Your task to perform on an android device: What is the news today? Image 0: 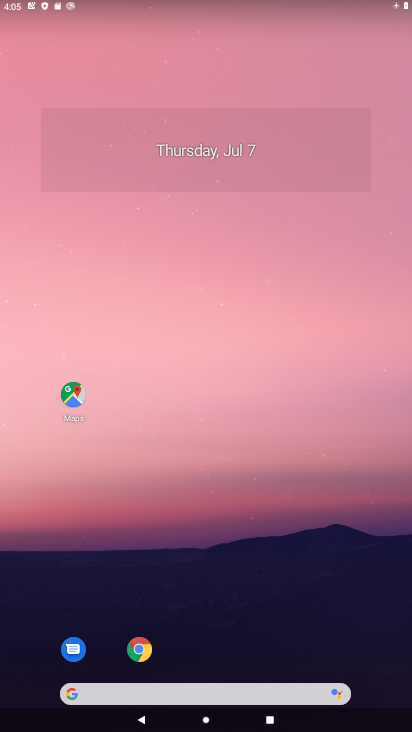
Step 0: drag from (305, 566) to (182, 102)
Your task to perform on an android device: What is the news today? Image 1: 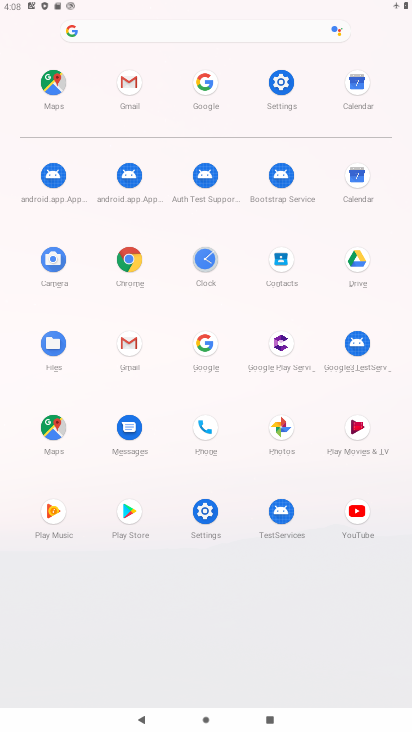
Step 1: click (191, 87)
Your task to perform on an android device: What is the news today? Image 2: 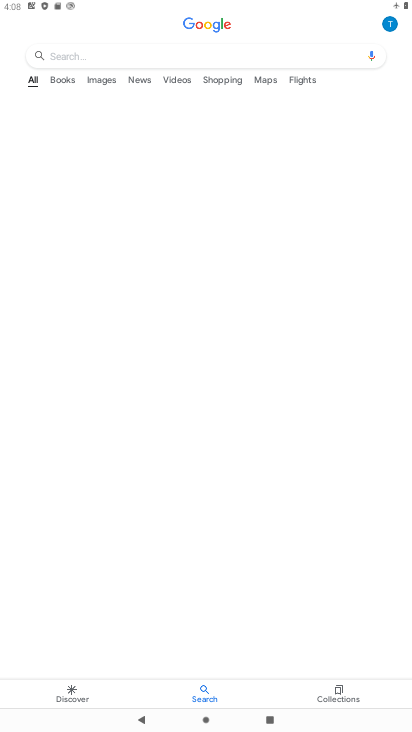
Step 2: click (194, 59)
Your task to perform on an android device: What is the news today? Image 3: 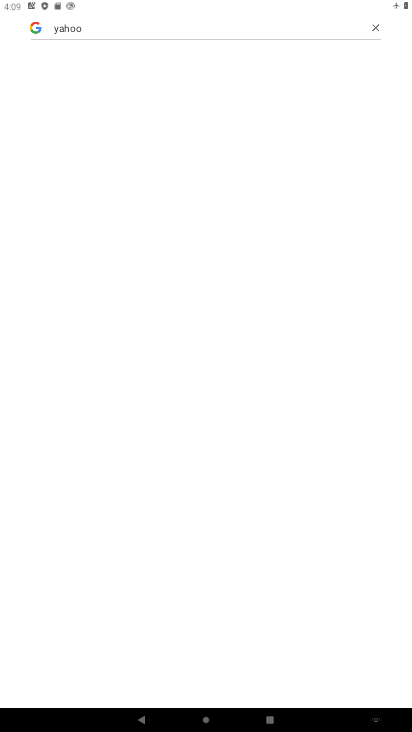
Step 3: click (376, 24)
Your task to perform on an android device: What is the news today? Image 4: 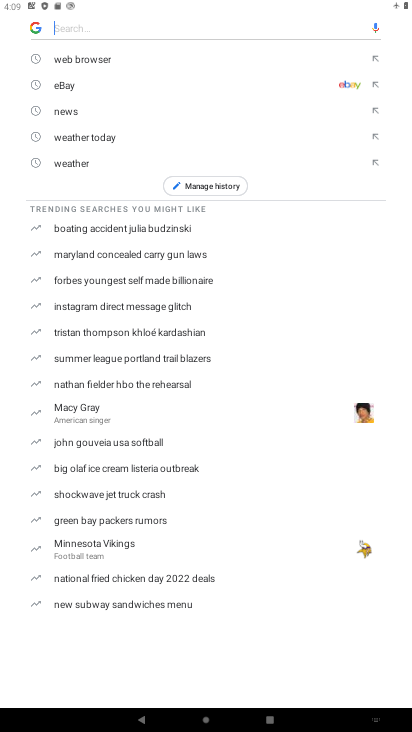
Step 4: type "What is the news today?"
Your task to perform on an android device: What is the news today? Image 5: 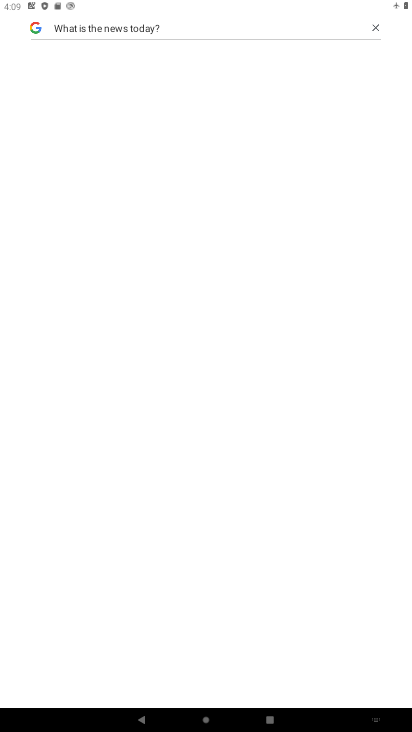
Step 5: task complete